Your task to perform on an android device: Open Youtube and go to "Your channel" Image 0: 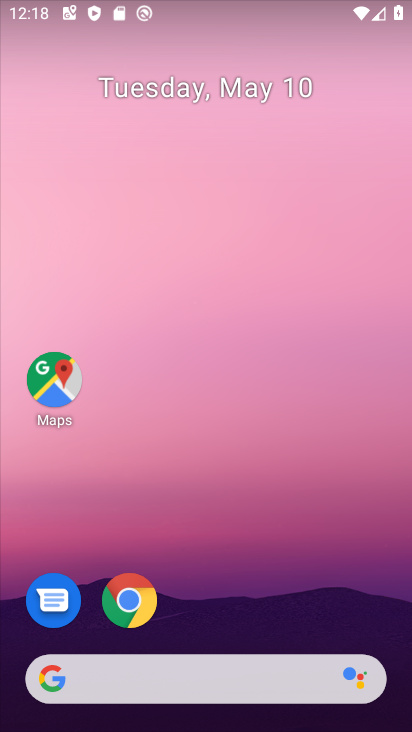
Step 0: click (139, 614)
Your task to perform on an android device: Open Youtube and go to "Your channel" Image 1: 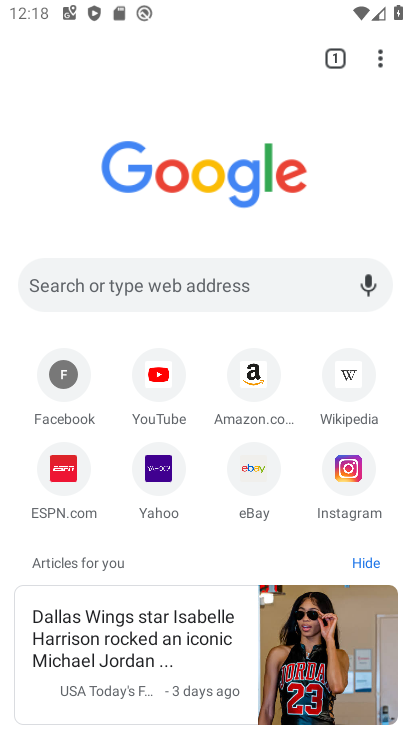
Step 1: press home button
Your task to perform on an android device: Open Youtube and go to "Your channel" Image 2: 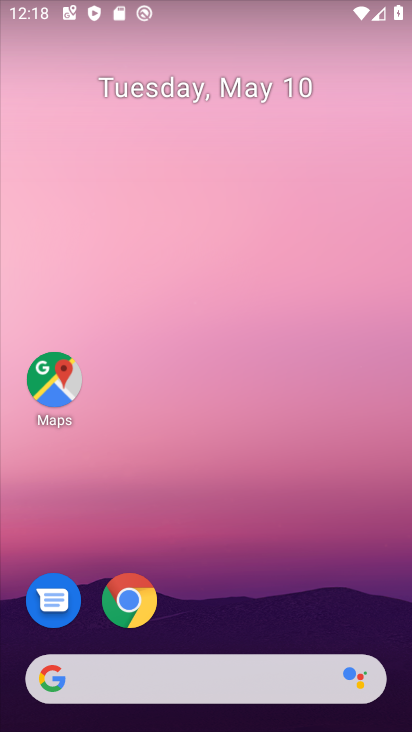
Step 2: drag from (213, 666) to (224, 186)
Your task to perform on an android device: Open Youtube and go to "Your channel" Image 3: 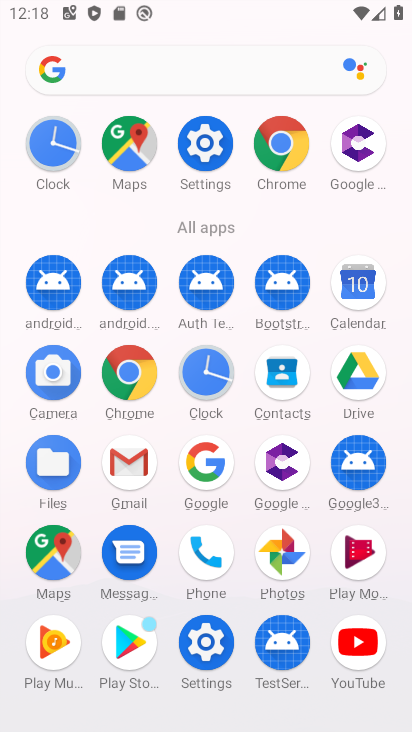
Step 3: click (340, 645)
Your task to perform on an android device: Open Youtube and go to "Your channel" Image 4: 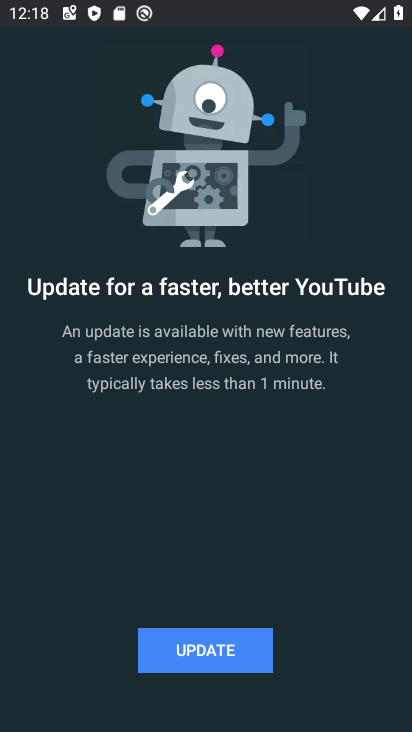
Step 4: drag from (340, 645) to (189, 645)
Your task to perform on an android device: Open Youtube and go to "Your channel" Image 5: 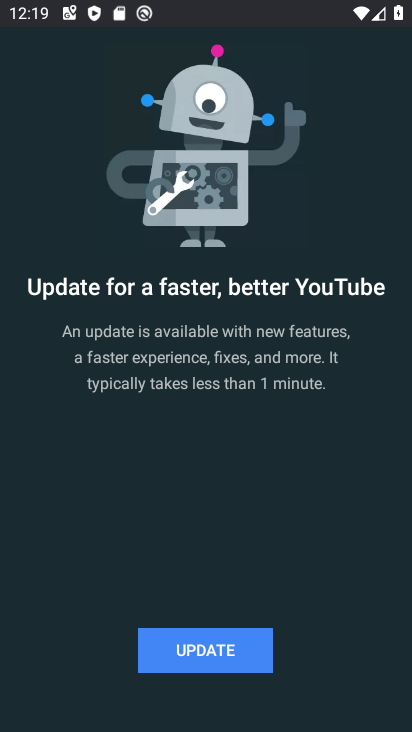
Step 5: click (253, 642)
Your task to perform on an android device: Open Youtube and go to "Your channel" Image 6: 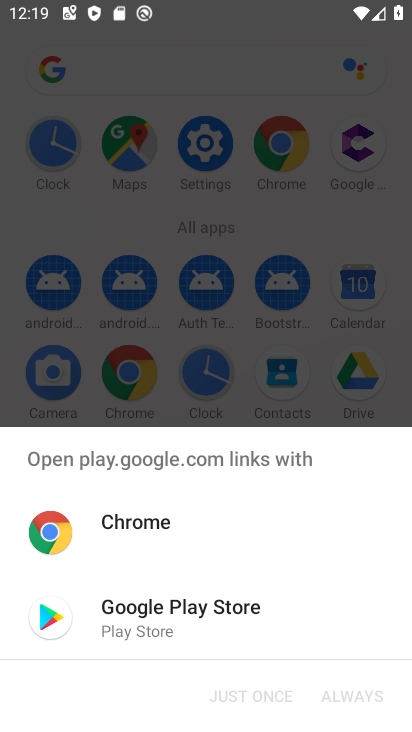
Step 6: click (134, 610)
Your task to perform on an android device: Open Youtube and go to "Your channel" Image 7: 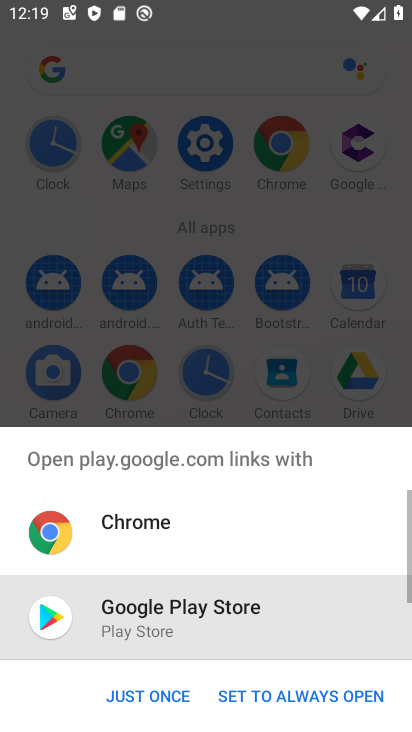
Step 7: click (175, 698)
Your task to perform on an android device: Open Youtube and go to "Your channel" Image 8: 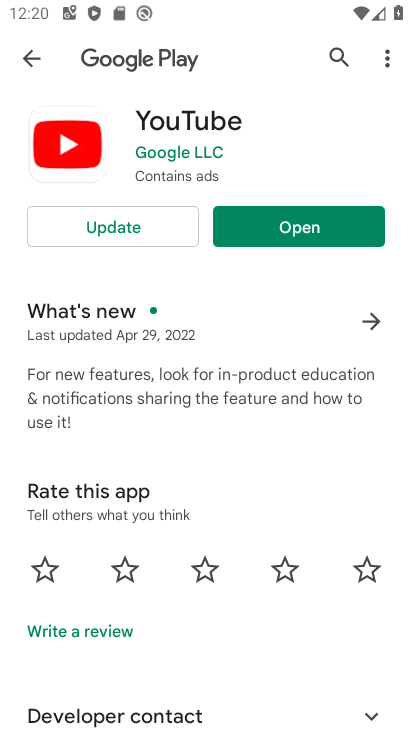
Step 8: click (109, 216)
Your task to perform on an android device: Open Youtube and go to "Your channel" Image 9: 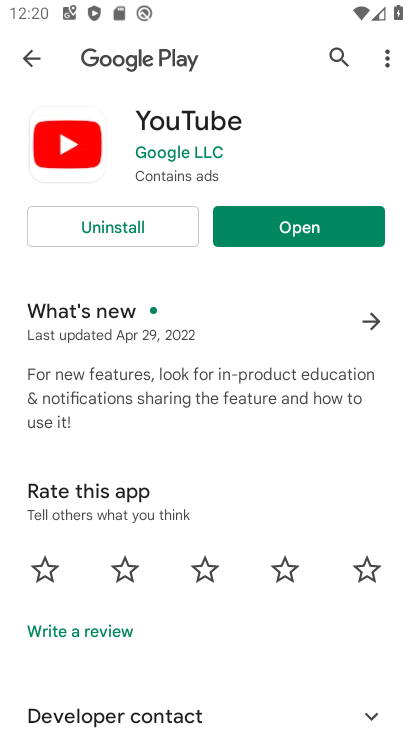
Step 9: click (336, 225)
Your task to perform on an android device: Open Youtube and go to "Your channel" Image 10: 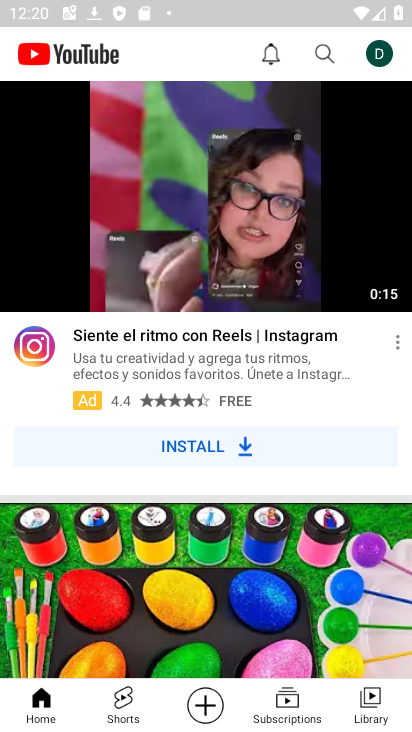
Step 10: click (378, 711)
Your task to perform on an android device: Open Youtube and go to "Your channel" Image 11: 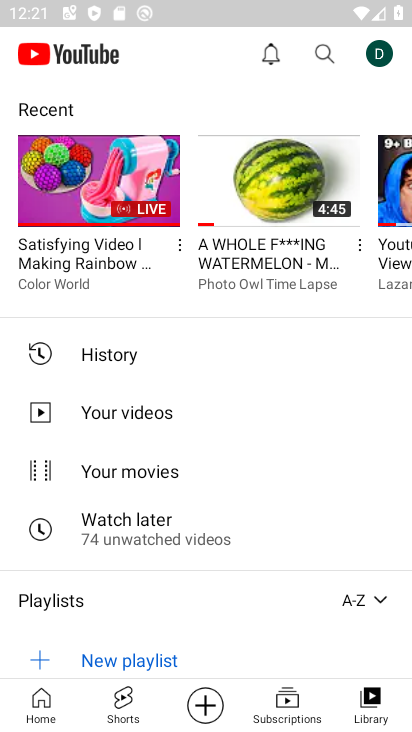
Step 11: click (369, 51)
Your task to perform on an android device: Open Youtube and go to "Your channel" Image 12: 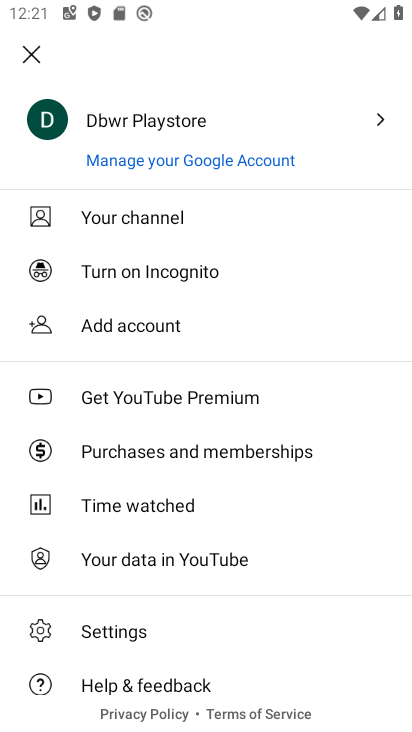
Step 12: click (102, 215)
Your task to perform on an android device: Open Youtube and go to "Your channel" Image 13: 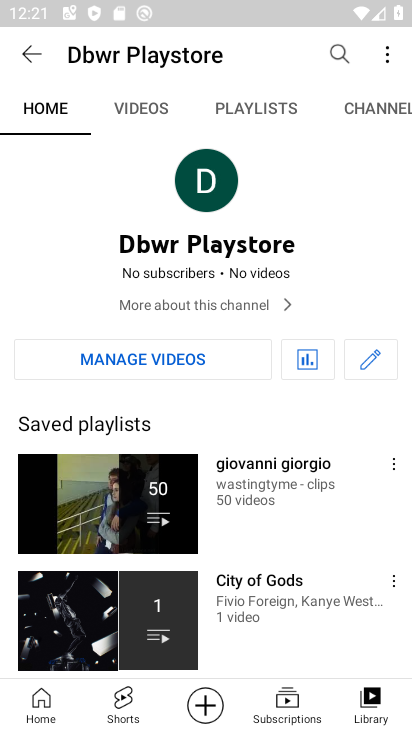
Step 13: task complete